Your task to perform on an android device: turn off translation in the chrome app Image 0: 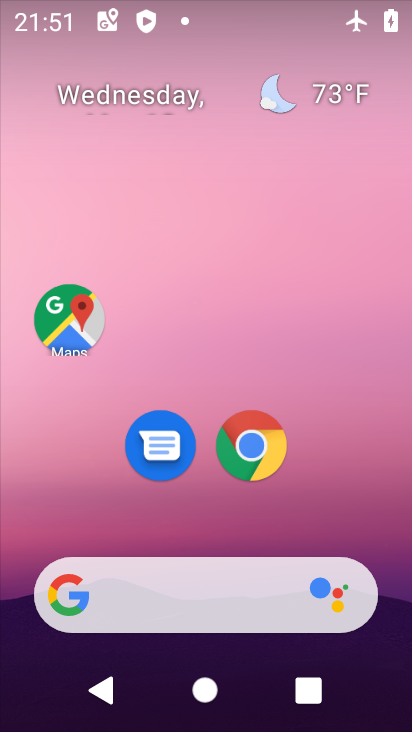
Step 0: drag from (297, 495) to (317, 223)
Your task to perform on an android device: turn off translation in the chrome app Image 1: 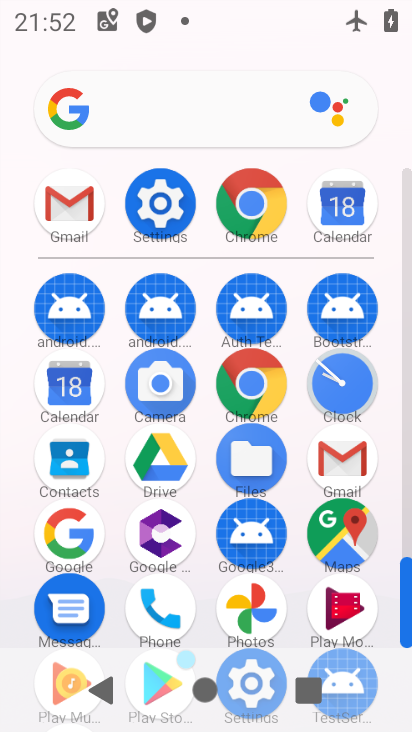
Step 1: click (257, 378)
Your task to perform on an android device: turn off translation in the chrome app Image 2: 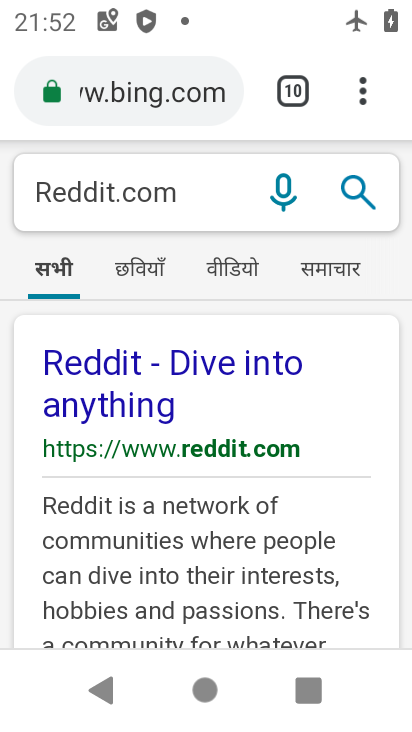
Step 2: click (354, 89)
Your task to perform on an android device: turn off translation in the chrome app Image 3: 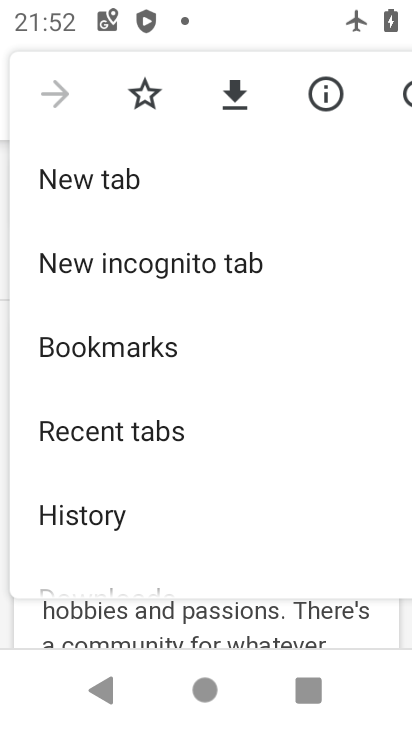
Step 3: drag from (228, 529) to (265, 187)
Your task to perform on an android device: turn off translation in the chrome app Image 4: 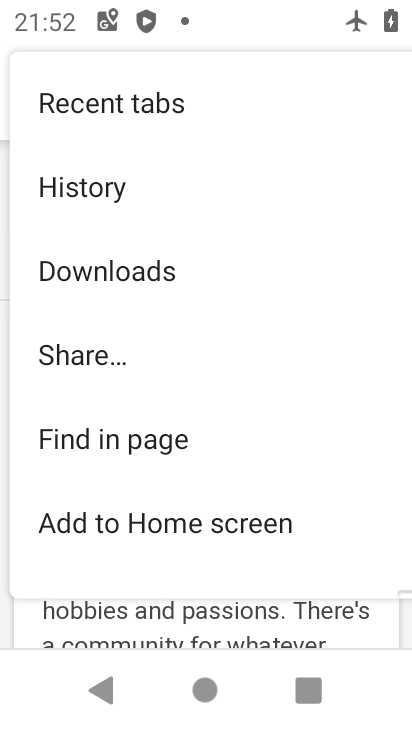
Step 4: drag from (164, 466) to (179, 195)
Your task to perform on an android device: turn off translation in the chrome app Image 5: 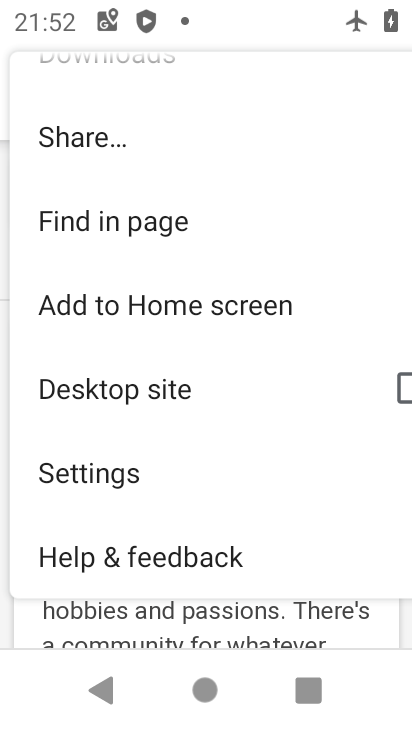
Step 5: click (117, 477)
Your task to perform on an android device: turn off translation in the chrome app Image 6: 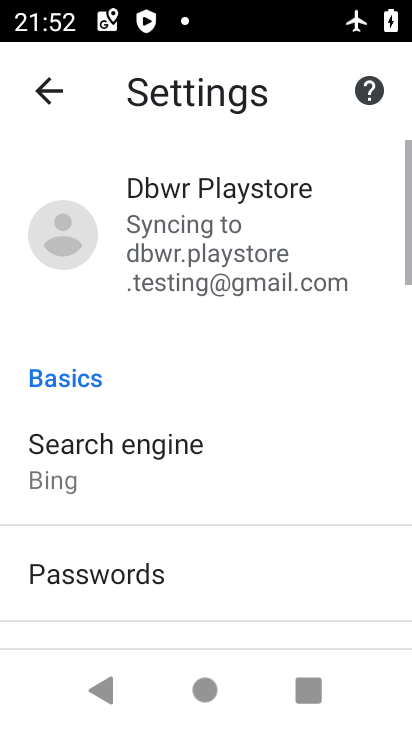
Step 6: drag from (217, 576) to (313, 118)
Your task to perform on an android device: turn off translation in the chrome app Image 7: 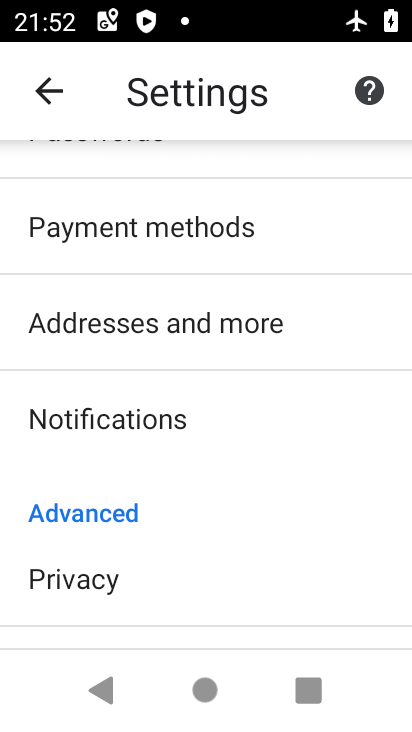
Step 7: drag from (194, 558) to (265, 224)
Your task to perform on an android device: turn off translation in the chrome app Image 8: 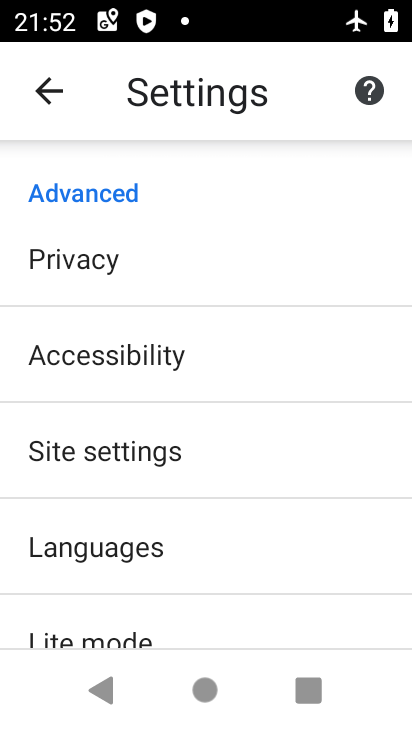
Step 8: click (180, 548)
Your task to perform on an android device: turn off translation in the chrome app Image 9: 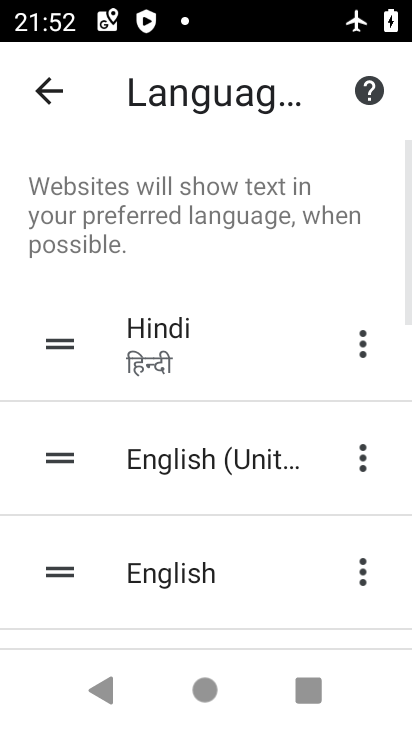
Step 9: task complete